Your task to perform on an android device: turn on showing notifications on the lock screen Image 0: 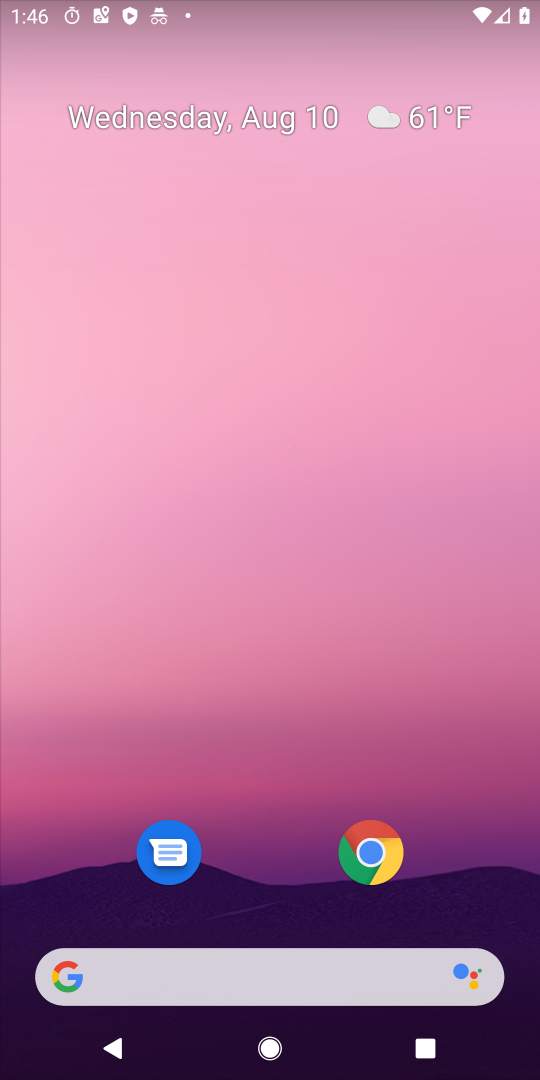
Step 0: drag from (229, 893) to (333, 218)
Your task to perform on an android device: turn on showing notifications on the lock screen Image 1: 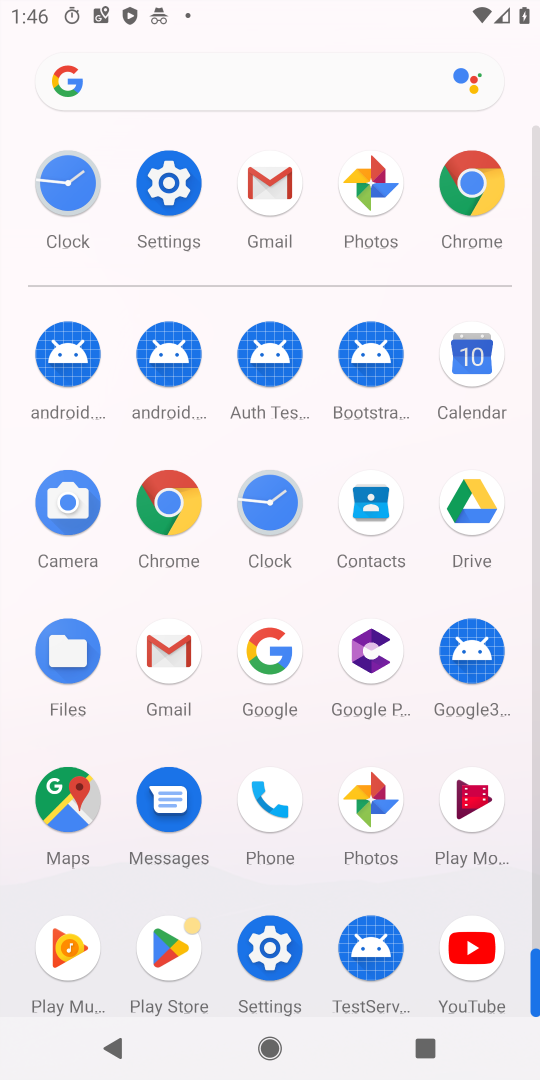
Step 1: click (260, 947)
Your task to perform on an android device: turn on showing notifications on the lock screen Image 2: 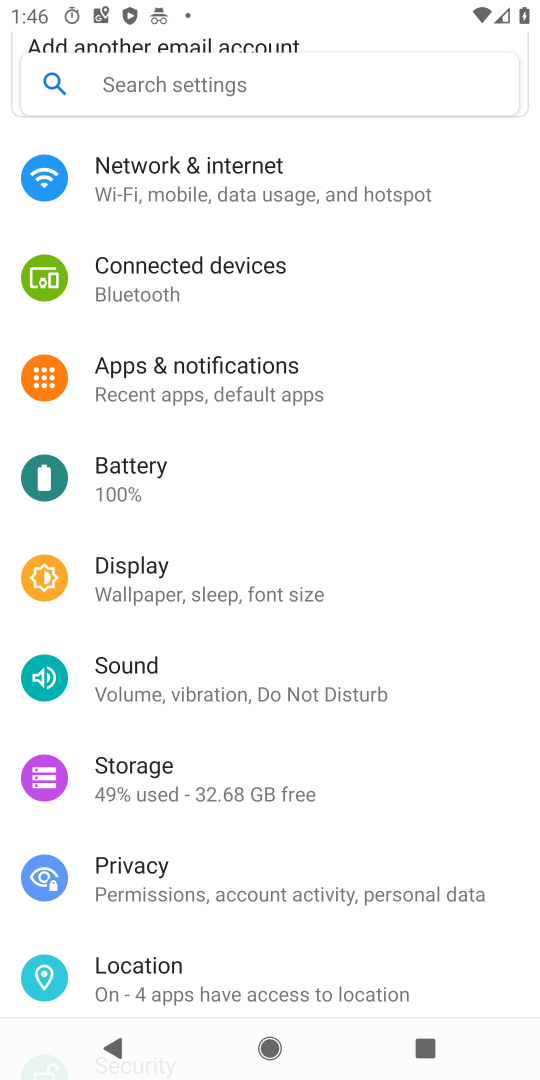
Step 2: click (175, 378)
Your task to perform on an android device: turn on showing notifications on the lock screen Image 3: 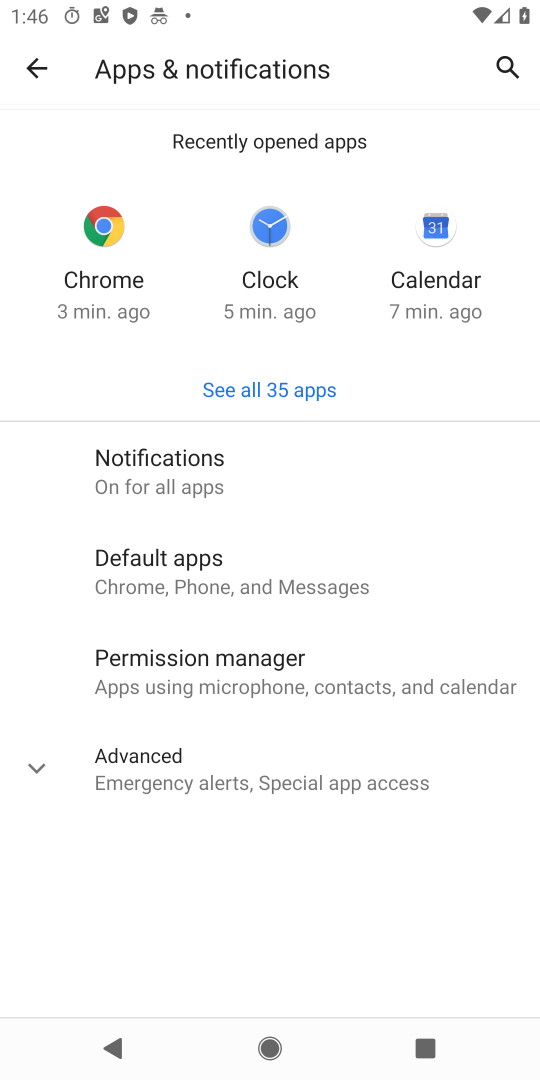
Step 3: click (196, 472)
Your task to perform on an android device: turn on showing notifications on the lock screen Image 4: 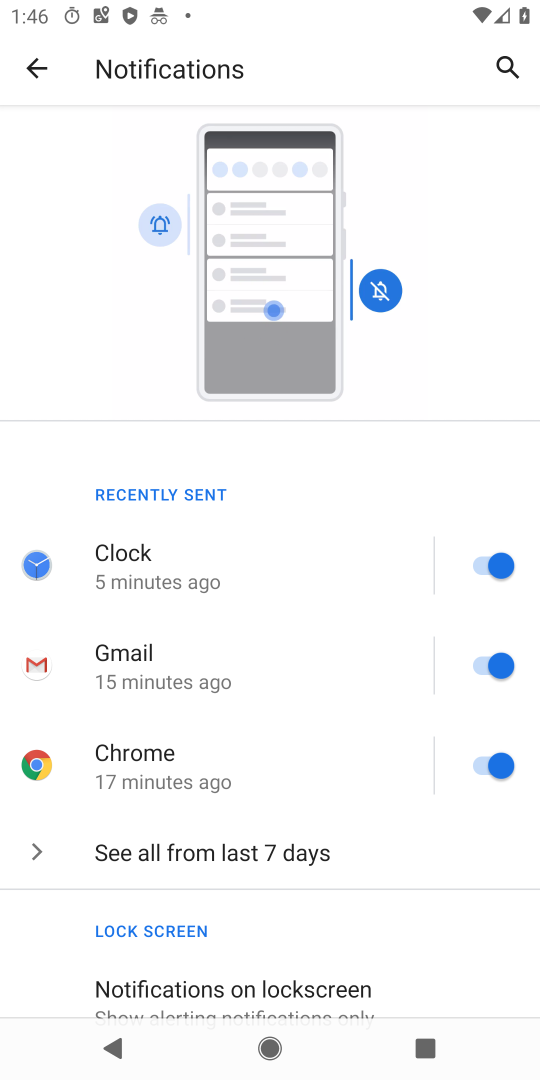
Step 4: click (310, 994)
Your task to perform on an android device: turn on showing notifications on the lock screen Image 5: 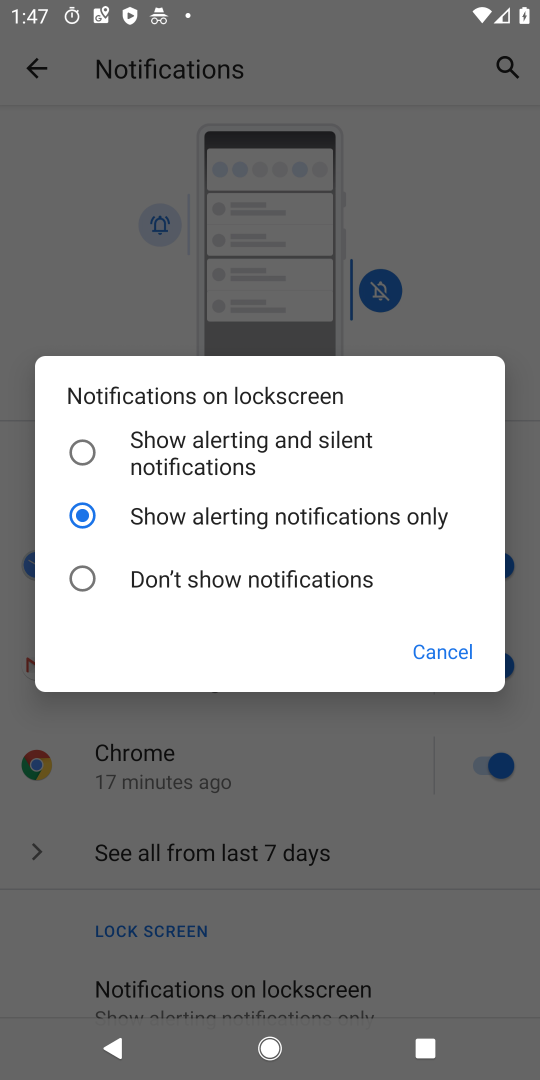
Step 5: task complete